Your task to perform on an android device: Go to Wikipedia Image 0: 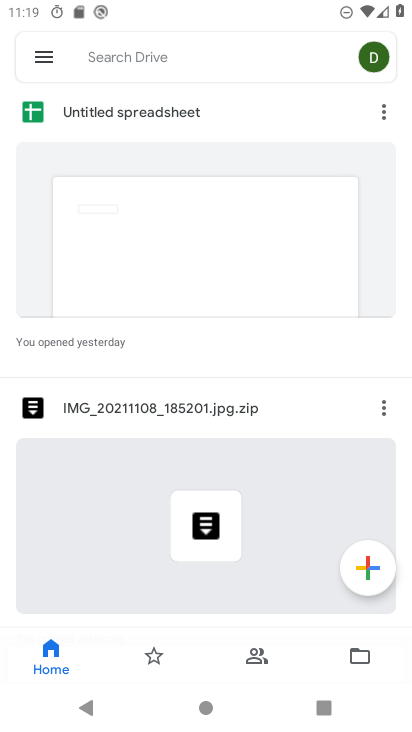
Step 0: press home button
Your task to perform on an android device: Go to Wikipedia Image 1: 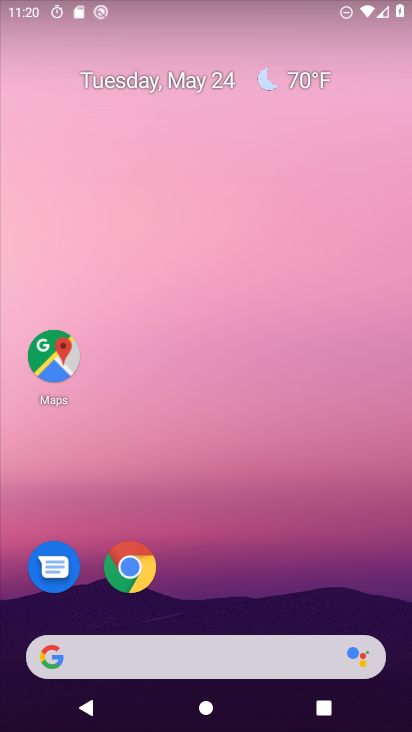
Step 1: click (125, 575)
Your task to perform on an android device: Go to Wikipedia Image 2: 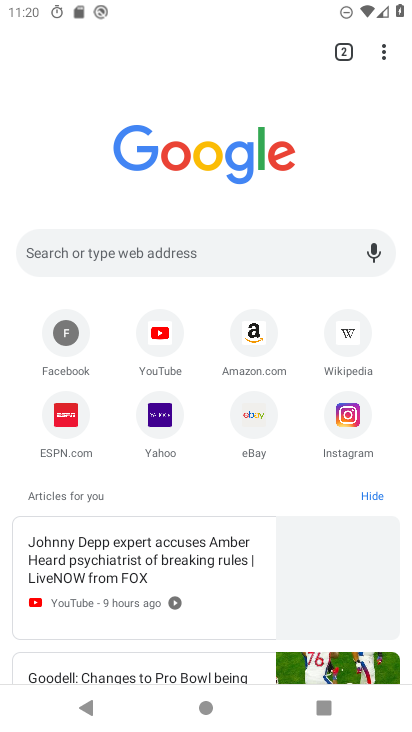
Step 2: click (232, 261)
Your task to perform on an android device: Go to Wikipedia Image 3: 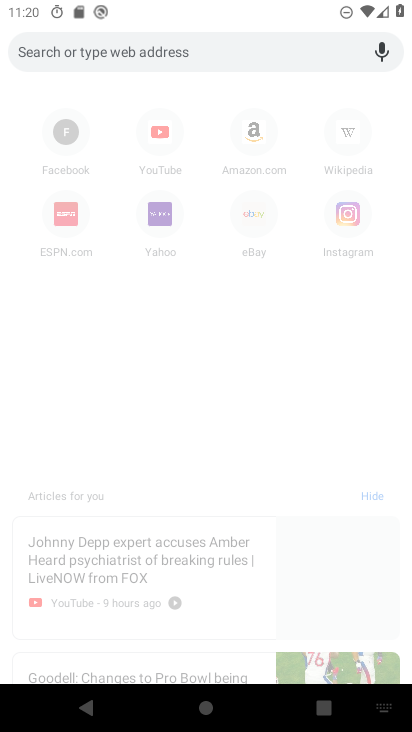
Step 3: type "Wikipedia"
Your task to perform on an android device: Go to Wikipedia Image 4: 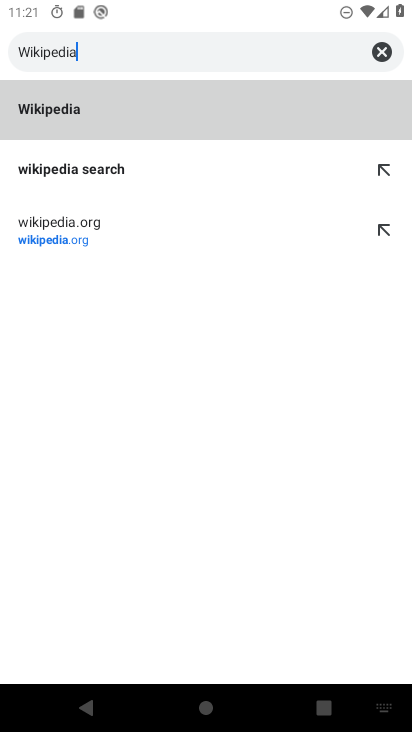
Step 4: click (55, 123)
Your task to perform on an android device: Go to Wikipedia Image 5: 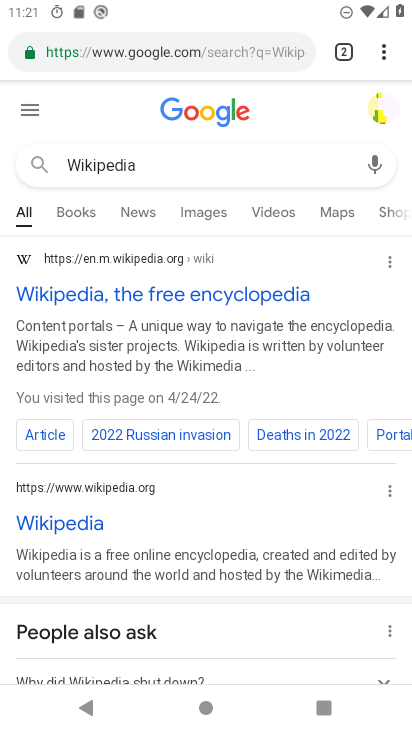
Step 5: task complete